Your task to perform on an android device: uninstall "Mercado Libre" Image 0: 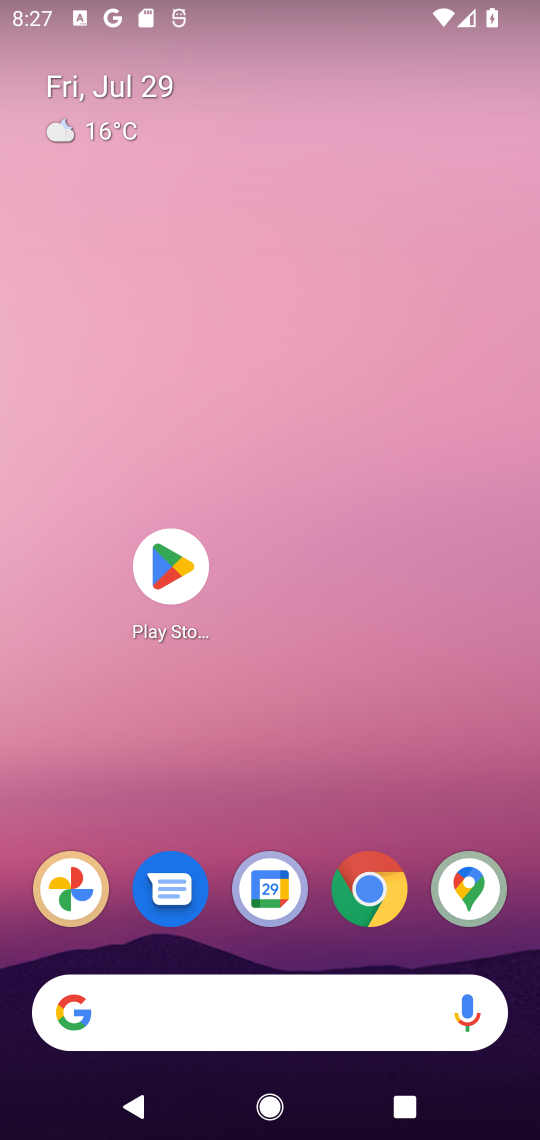
Step 0: click (165, 570)
Your task to perform on an android device: uninstall "Mercado Libre" Image 1: 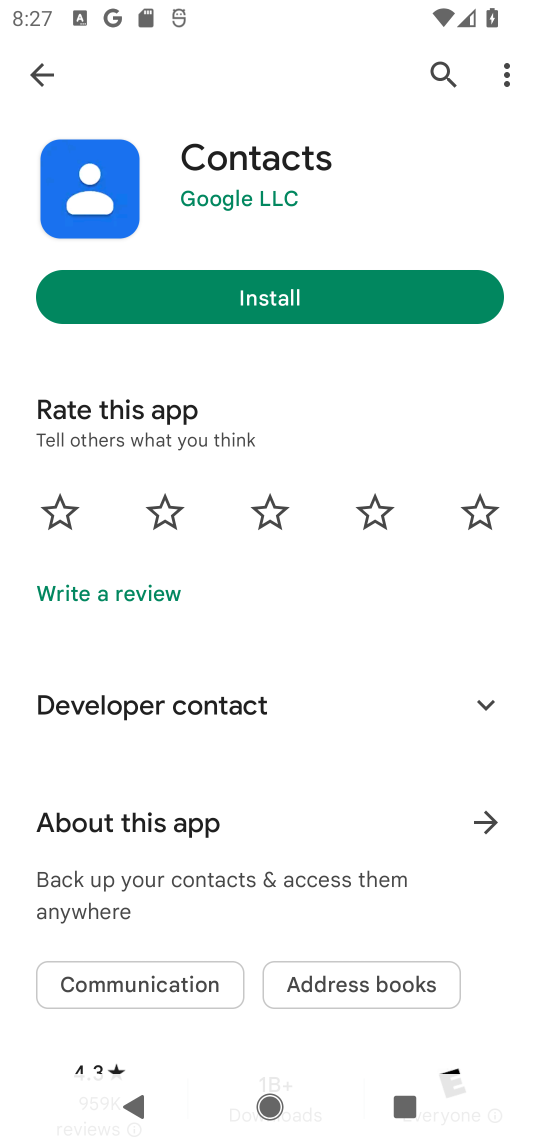
Step 1: click (438, 65)
Your task to perform on an android device: uninstall "Mercado Libre" Image 2: 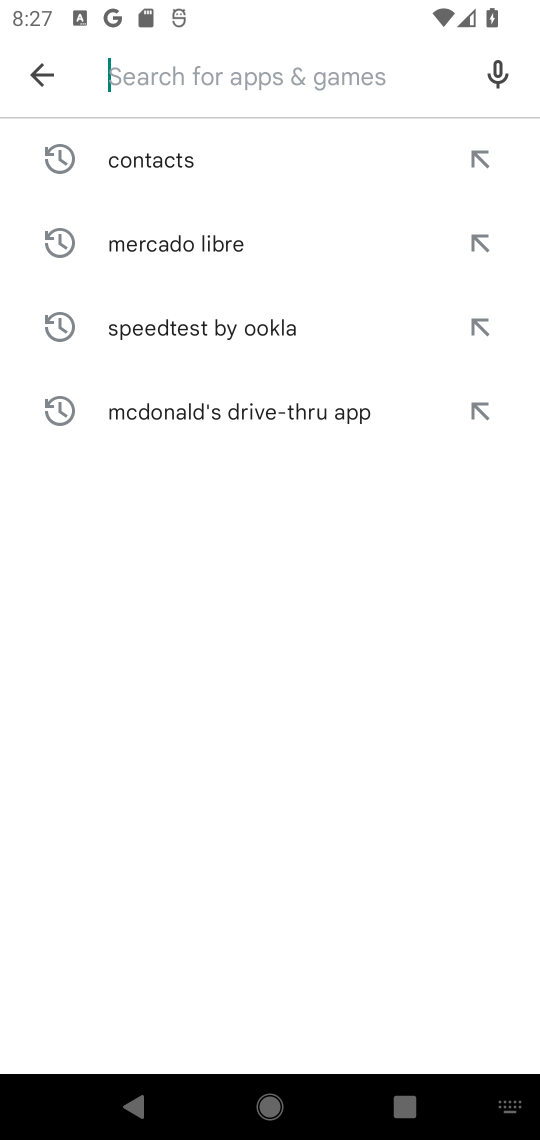
Step 2: click (224, 236)
Your task to perform on an android device: uninstall "Mercado Libre" Image 3: 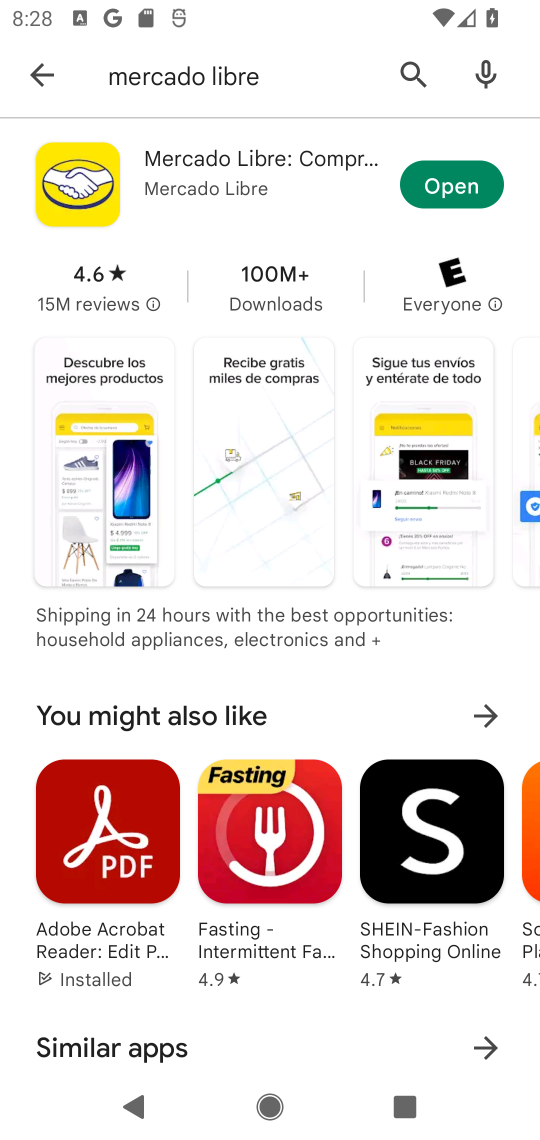
Step 3: click (116, 179)
Your task to perform on an android device: uninstall "Mercado Libre" Image 4: 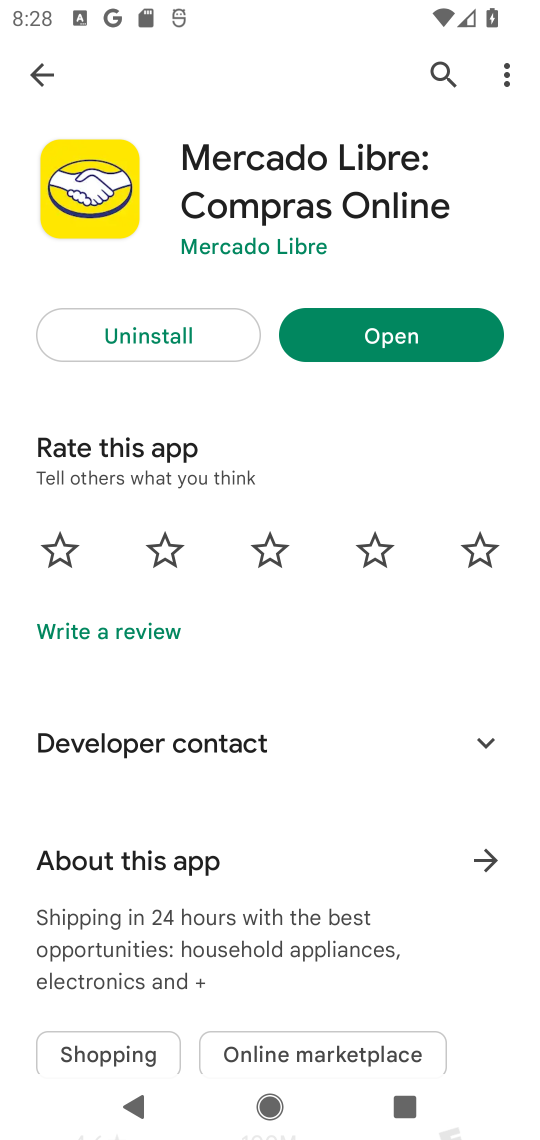
Step 4: click (191, 327)
Your task to perform on an android device: uninstall "Mercado Libre" Image 5: 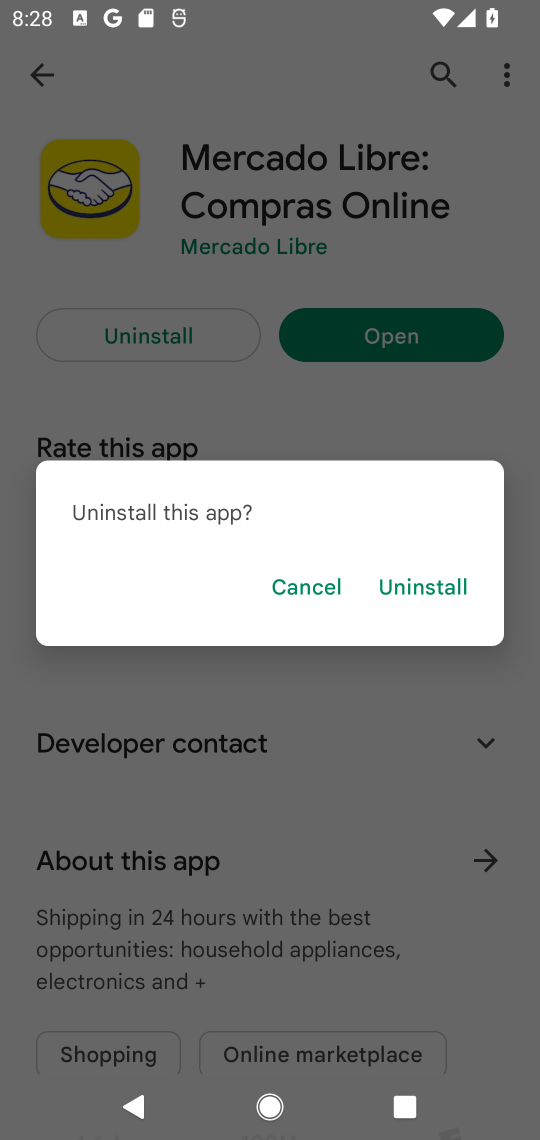
Step 5: click (429, 588)
Your task to perform on an android device: uninstall "Mercado Libre" Image 6: 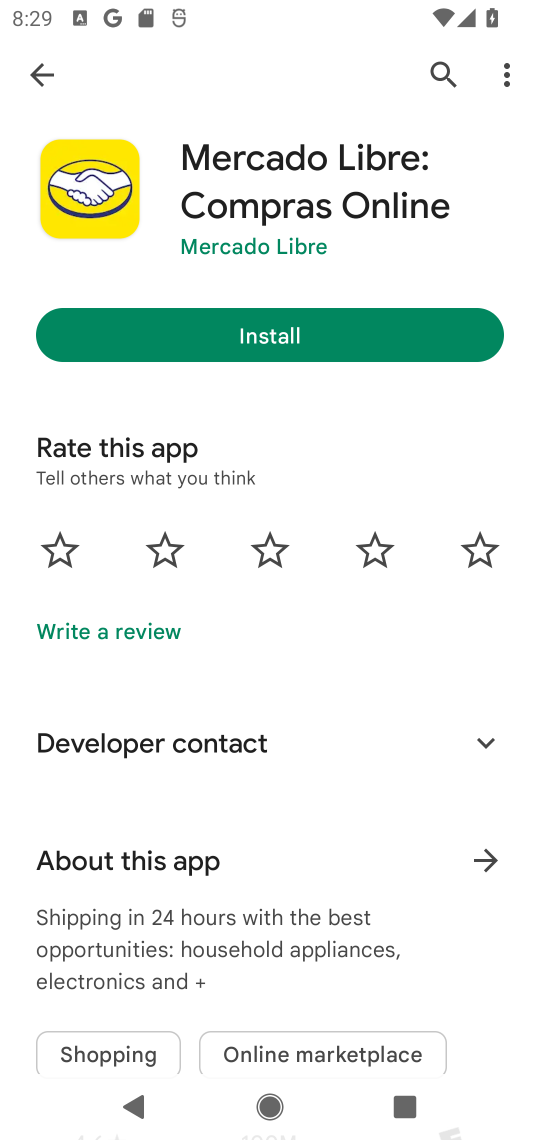
Step 6: task complete